Your task to perform on an android device: turn notification dots off Image 0: 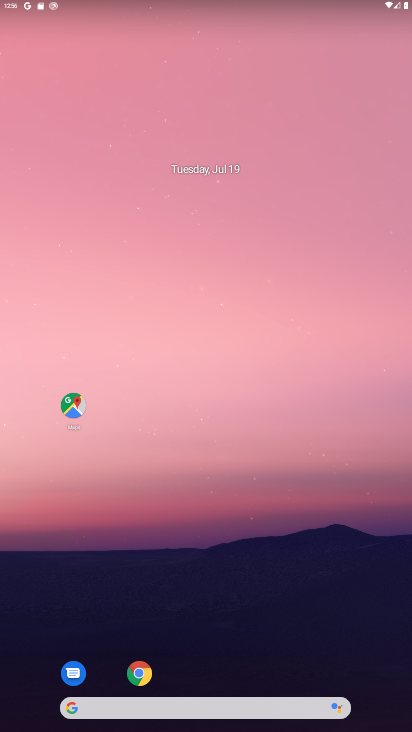
Step 0: drag from (248, 719) to (211, 171)
Your task to perform on an android device: turn notification dots off Image 1: 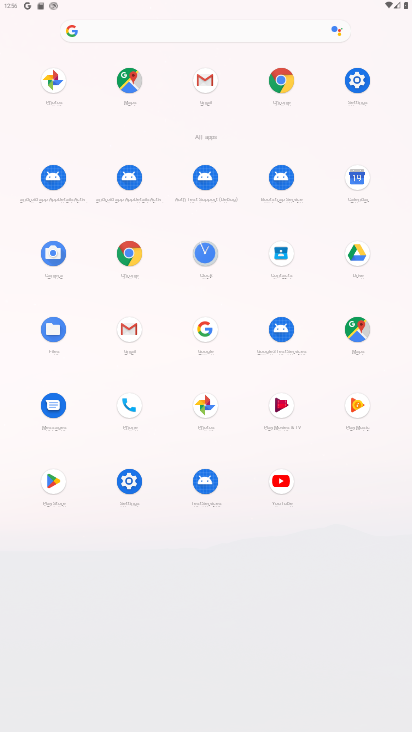
Step 1: click (352, 84)
Your task to perform on an android device: turn notification dots off Image 2: 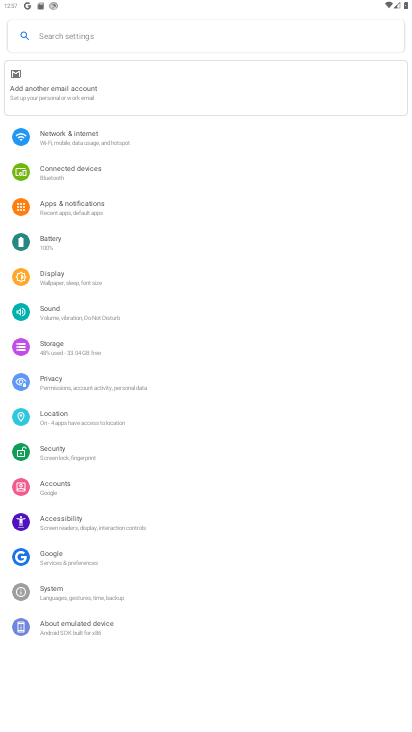
Step 2: click (57, 205)
Your task to perform on an android device: turn notification dots off Image 3: 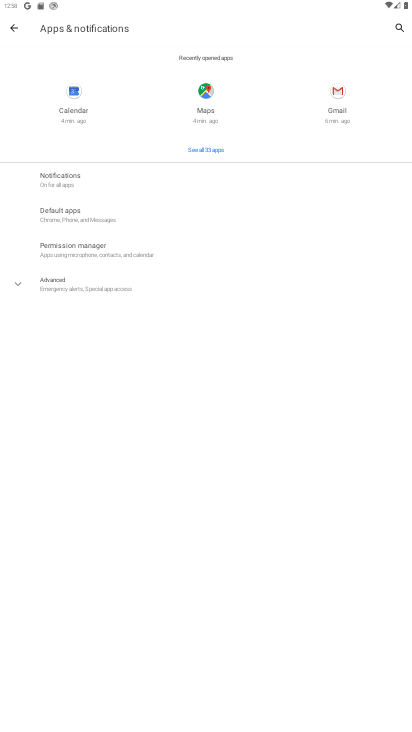
Step 3: click (77, 175)
Your task to perform on an android device: turn notification dots off Image 4: 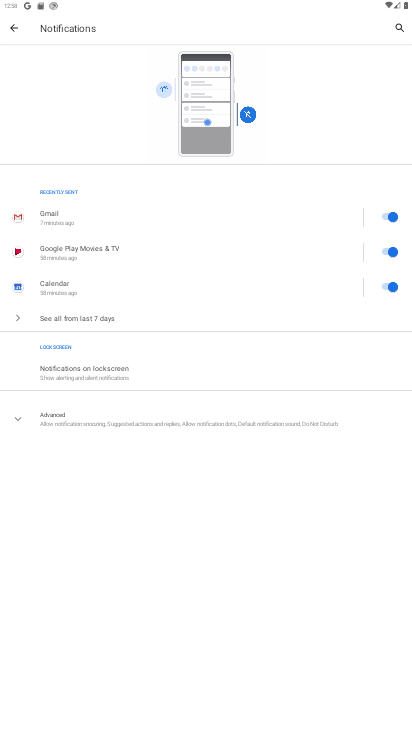
Step 4: click (241, 415)
Your task to perform on an android device: turn notification dots off Image 5: 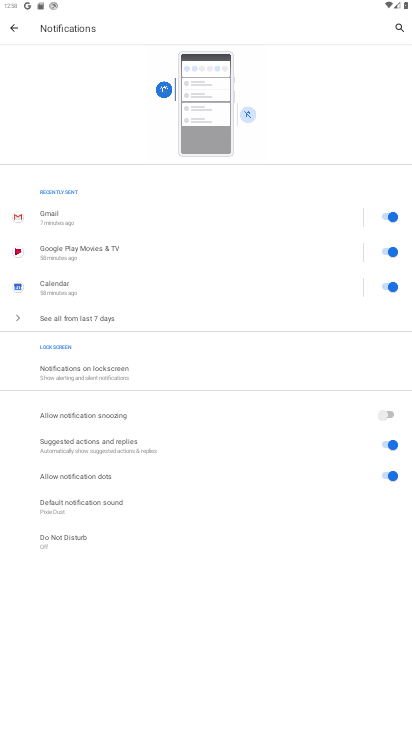
Step 5: click (394, 478)
Your task to perform on an android device: turn notification dots off Image 6: 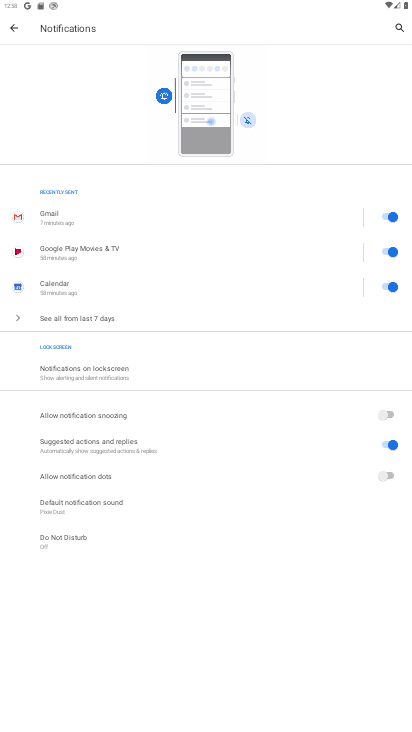
Step 6: task complete